Your task to perform on an android device: Go to display settings Image 0: 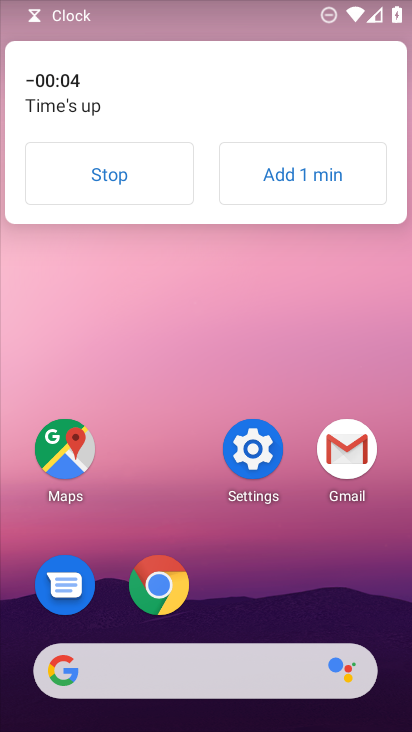
Step 0: click (76, 173)
Your task to perform on an android device: Go to display settings Image 1: 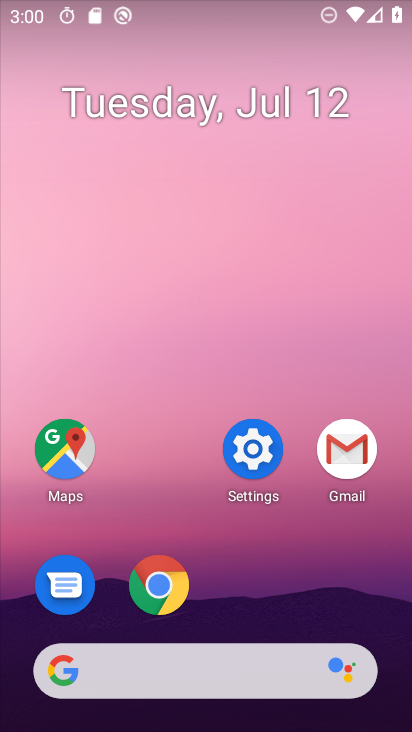
Step 1: click (254, 446)
Your task to perform on an android device: Go to display settings Image 2: 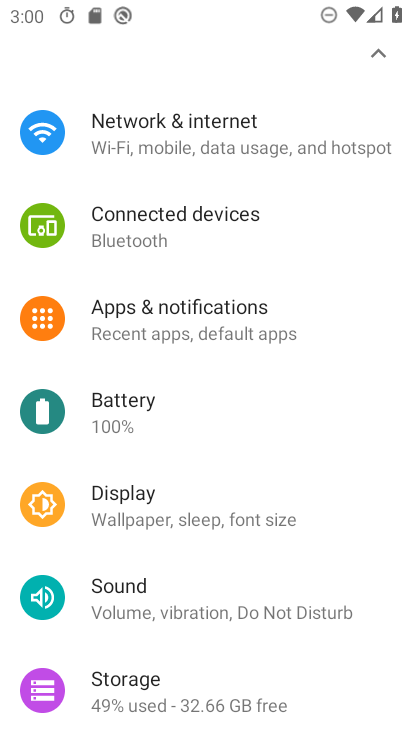
Step 2: click (116, 503)
Your task to perform on an android device: Go to display settings Image 3: 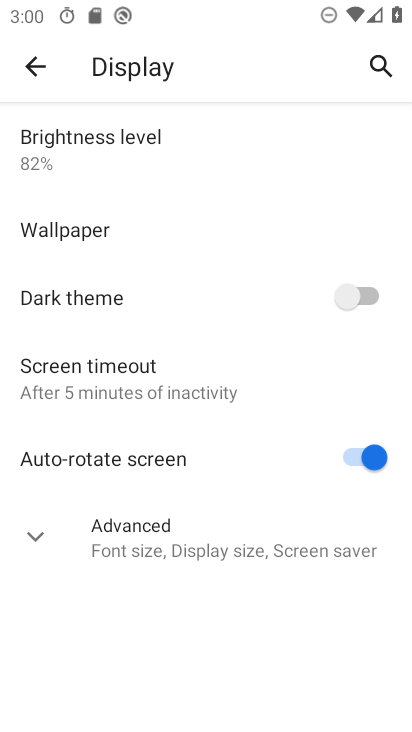
Step 3: click (27, 536)
Your task to perform on an android device: Go to display settings Image 4: 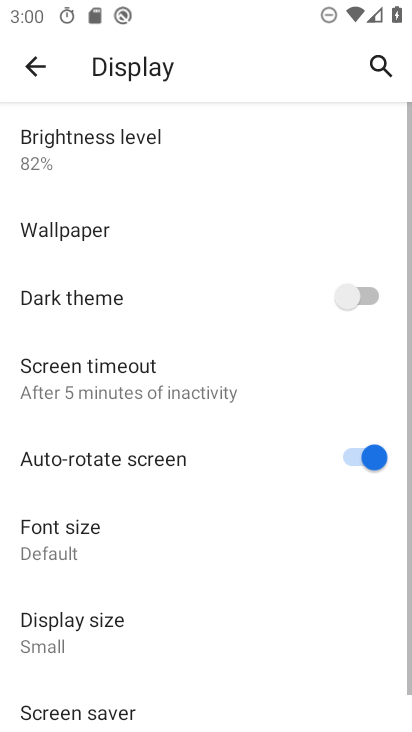
Step 4: task complete